Your task to perform on an android device: change your default location settings in chrome Image 0: 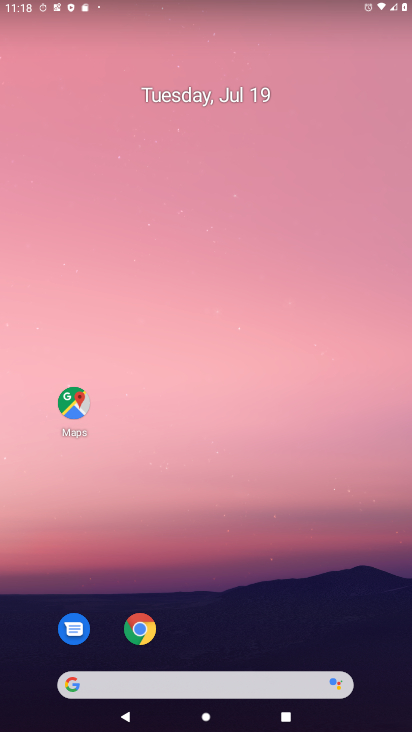
Step 0: click (71, 161)
Your task to perform on an android device: change your default location settings in chrome Image 1: 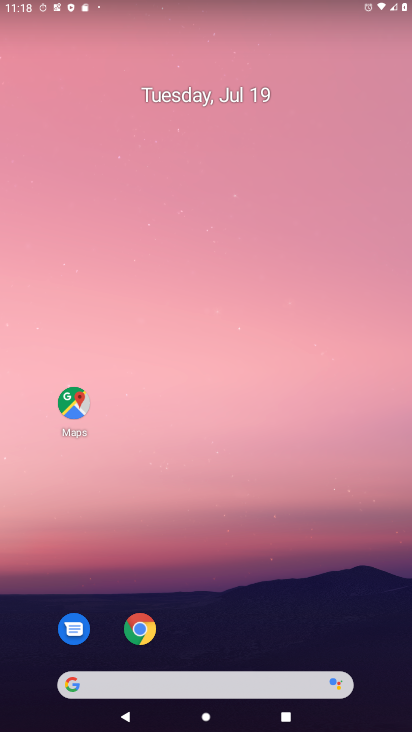
Step 1: drag from (236, 634) to (227, 323)
Your task to perform on an android device: change your default location settings in chrome Image 2: 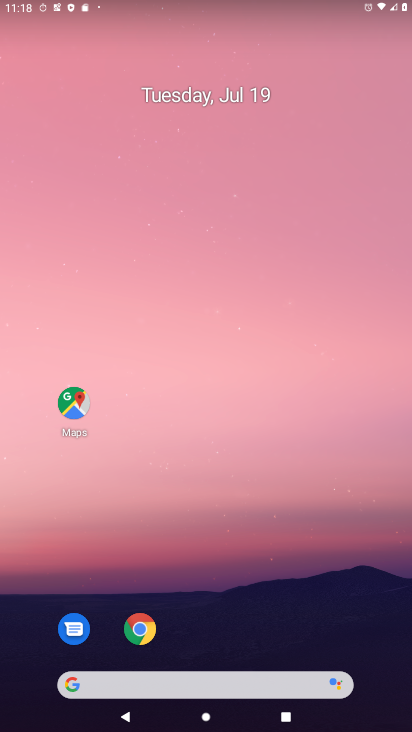
Step 2: drag from (202, 481) to (185, 121)
Your task to perform on an android device: change your default location settings in chrome Image 3: 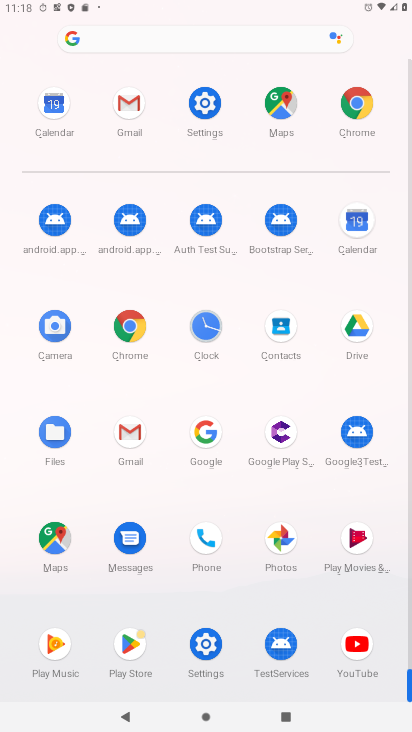
Step 3: click (128, 334)
Your task to perform on an android device: change your default location settings in chrome Image 4: 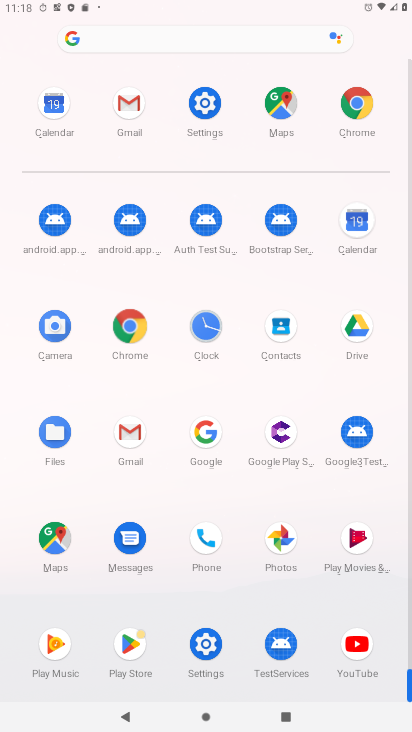
Step 4: click (133, 334)
Your task to perform on an android device: change your default location settings in chrome Image 5: 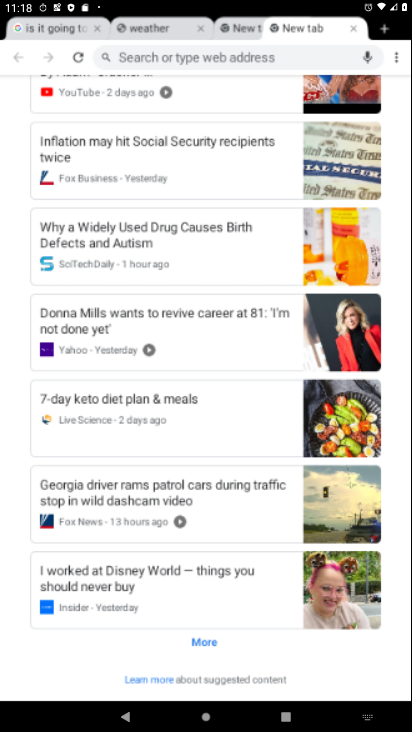
Step 5: click (132, 328)
Your task to perform on an android device: change your default location settings in chrome Image 6: 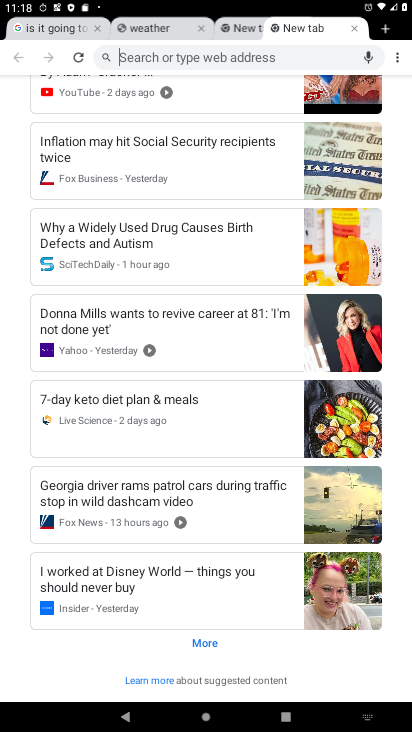
Step 6: drag from (397, 58) to (275, 260)
Your task to perform on an android device: change your default location settings in chrome Image 7: 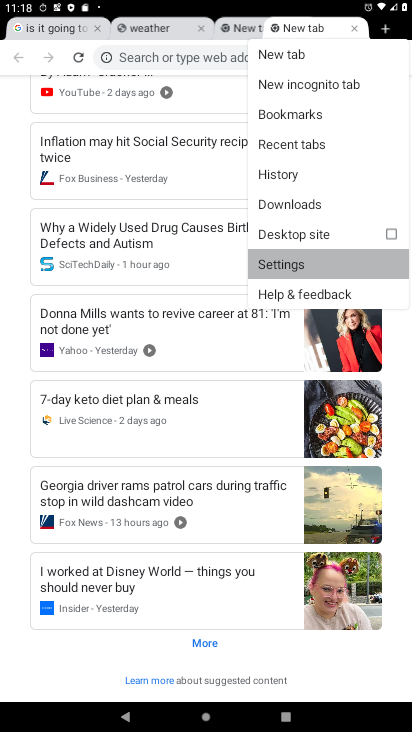
Step 7: click (275, 260)
Your task to perform on an android device: change your default location settings in chrome Image 8: 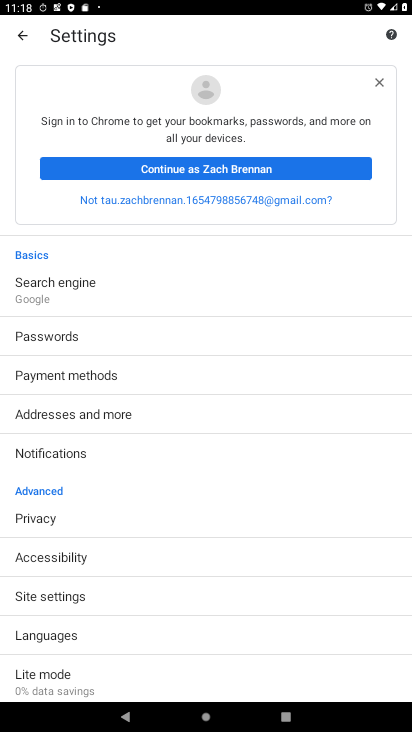
Step 8: click (157, 539)
Your task to perform on an android device: change your default location settings in chrome Image 9: 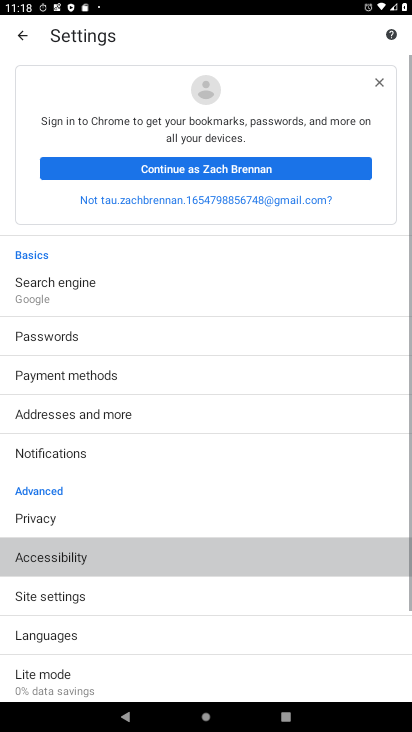
Step 9: drag from (121, 612) to (118, 384)
Your task to perform on an android device: change your default location settings in chrome Image 10: 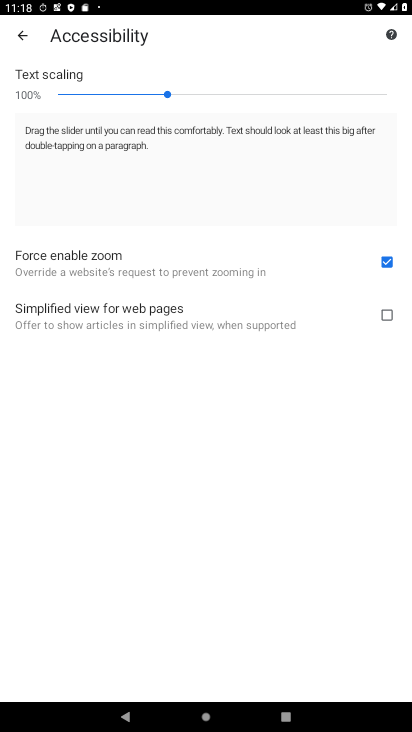
Step 10: click (23, 40)
Your task to perform on an android device: change your default location settings in chrome Image 11: 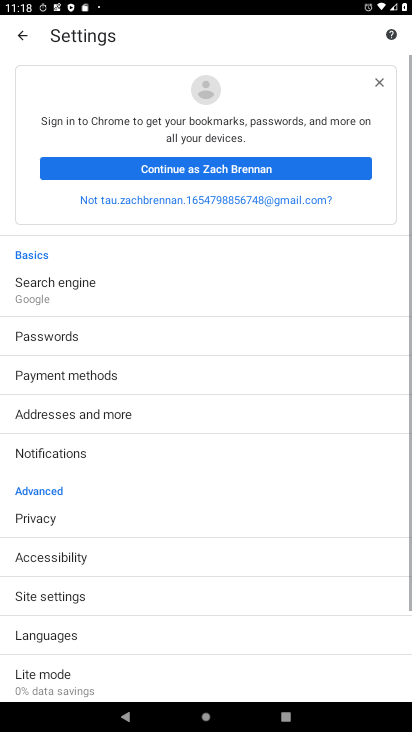
Step 11: click (25, 40)
Your task to perform on an android device: change your default location settings in chrome Image 12: 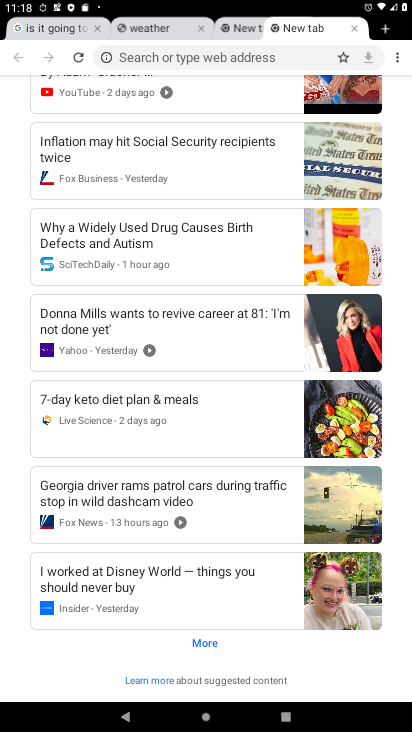
Step 12: drag from (392, 52) to (274, 262)
Your task to perform on an android device: change your default location settings in chrome Image 13: 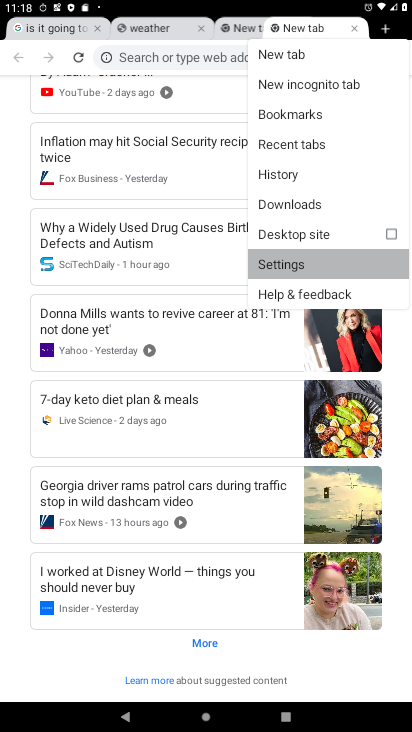
Step 13: click (277, 261)
Your task to perform on an android device: change your default location settings in chrome Image 14: 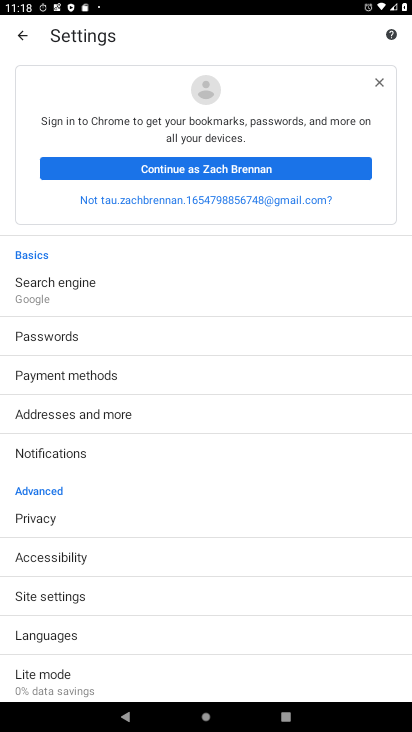
Step 14: click (40, 628)
Your task to perform on an android device: change your default location settings in chrome Image 15: 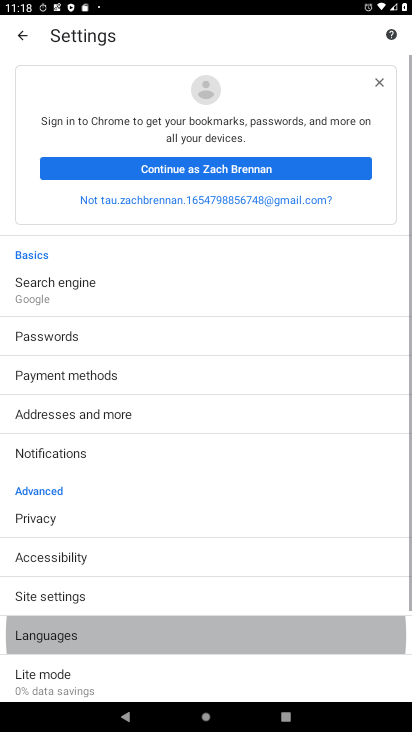
Step 15: click (40, 628)
Your task to perform on an android device: change your default location settings in chrome Image 16: 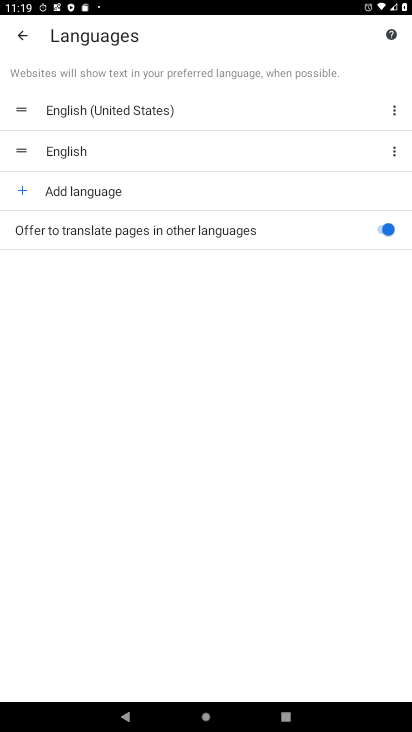
Step 16: click (385, 223)
Your task to perform on an android device: change your default location settings in chrome Image 17: 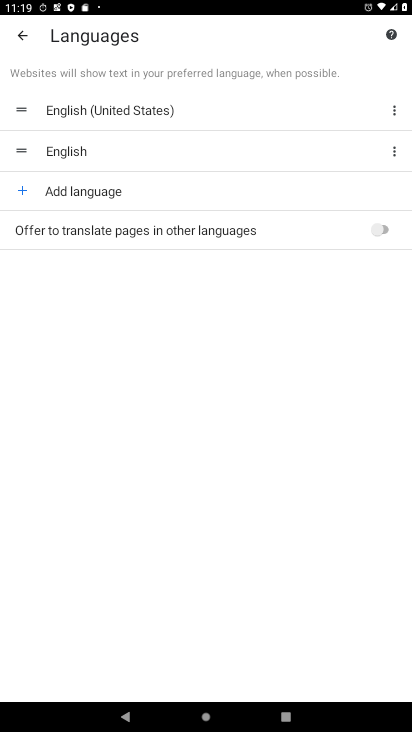
Step 17: task complete